Your task to perform on an android device: all mails in gmail Image 0: 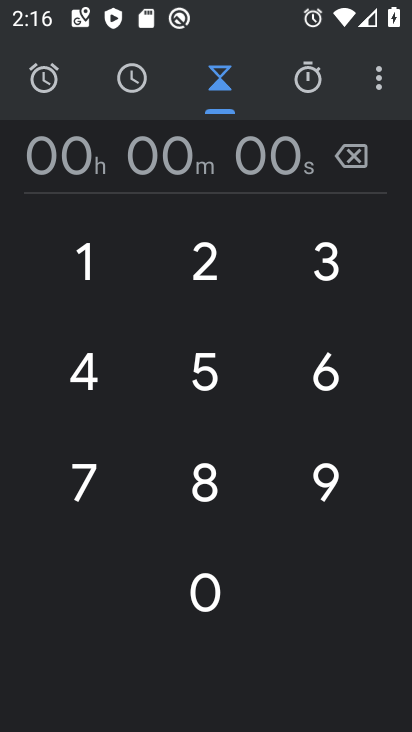
Step 0: press back button
Your task to perform on an android device: all mails in gmail Image 1: 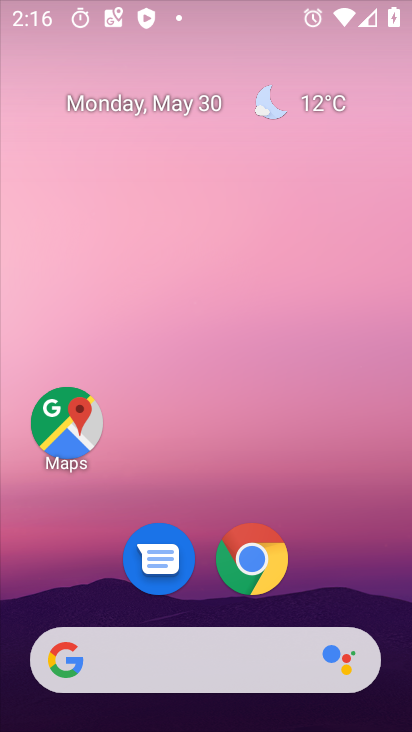
Step 1: drag from (218, 469) to (230, 4)
Your task to perform on an android device: all mails in gmail Image 2: 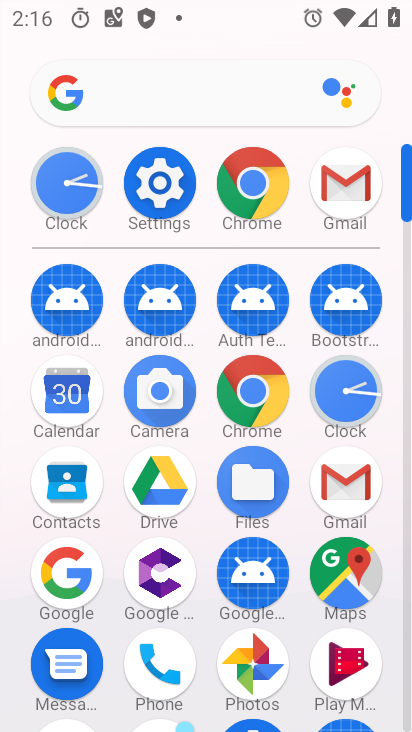
Step 2: click (345, 182)
Your task to perform on an android device: all mails in gmail Image 3: 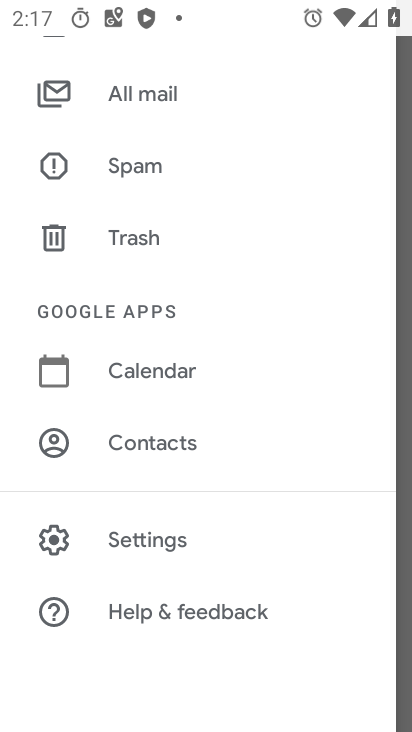
Step 3: click (137, 101)
Your task to perform on an android device: all mails in gmail Image 4: 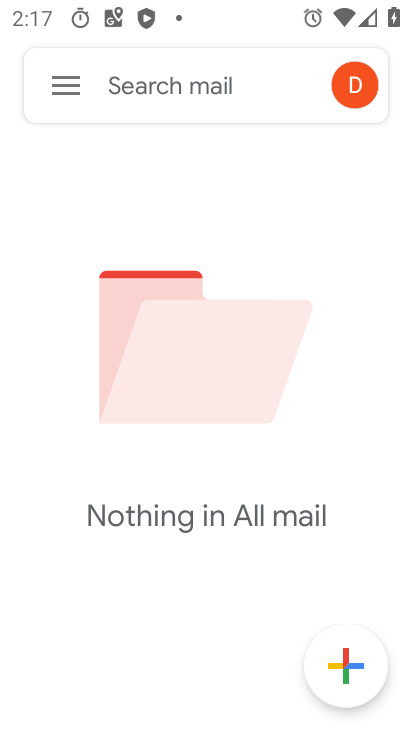
Step 4: task complete